Your task to perform on an android device: turn on bluetooth scan Image 0: 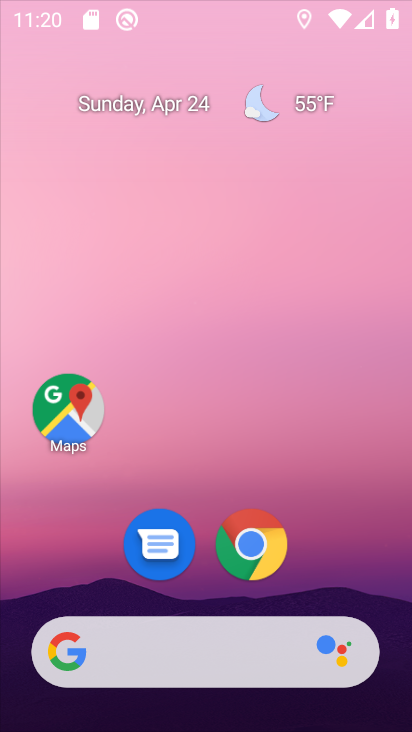
Step 0: click (247, 545)
Your task to perform on an android device: turn on bluetooth scan Image 1: 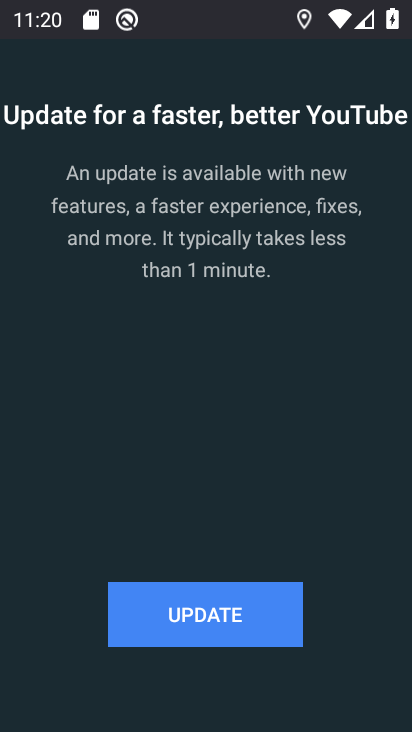
Step 1: press home button
Your task to perform on an android device: turn on bluetooth scan Image 2: 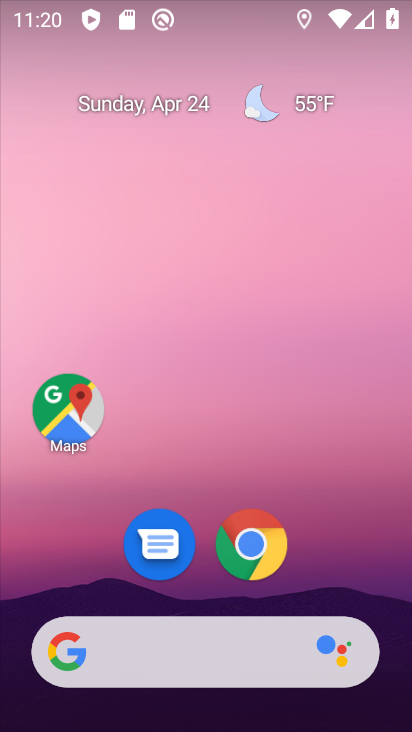
Step 2: drag from (319, 439) to (314, 94)
Your task to perform on an android device: turn on bluetooth scan Image 3: 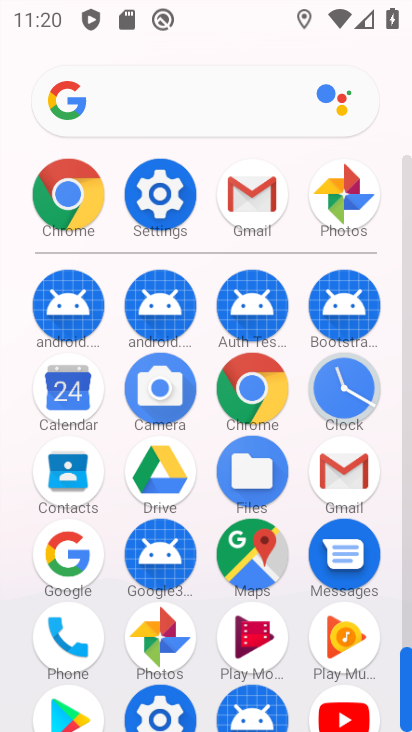
Step 3: click (158, 188)
Your task to perform on an android device: turn on bluetooth scan Image 4: 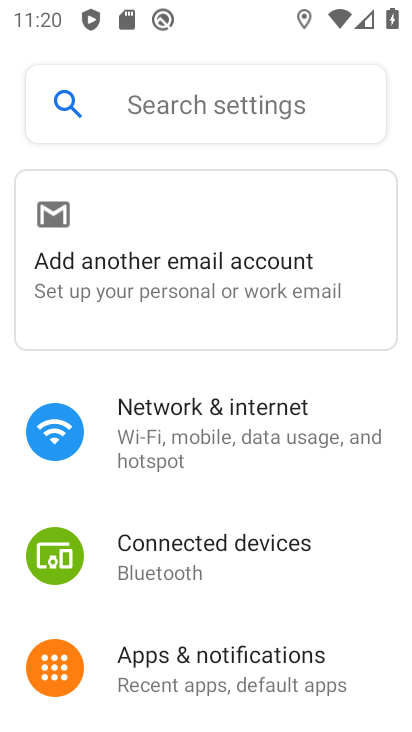
Step 4: drag from (366, 654) to (337, 119)
Your task to perform on an android device: turn on bluetooth scan Image 5: 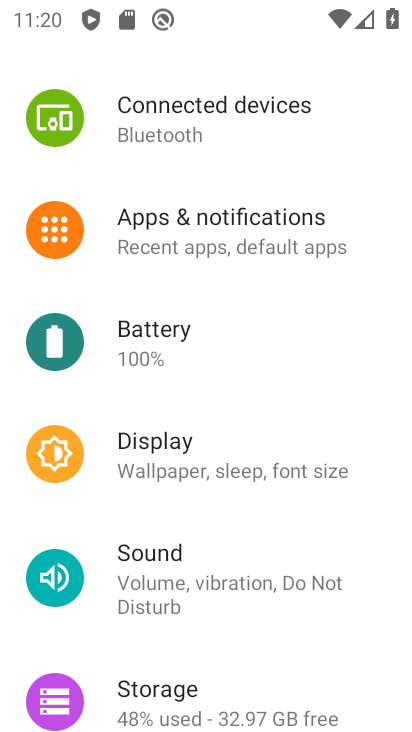
Step 5: drag from (346, 602) to (346, 223)
Your task to perform on an android device: turn on bluetooth scan Image 6: 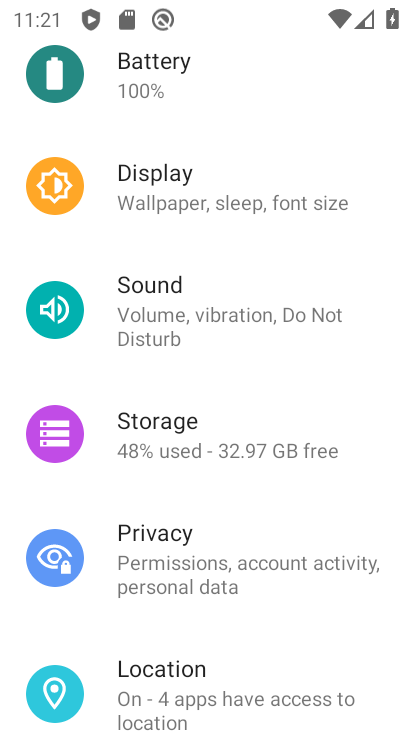
Step 6: click (140, 686)
Your task to perform on an android device: turn on bluetooth scan Image 7: 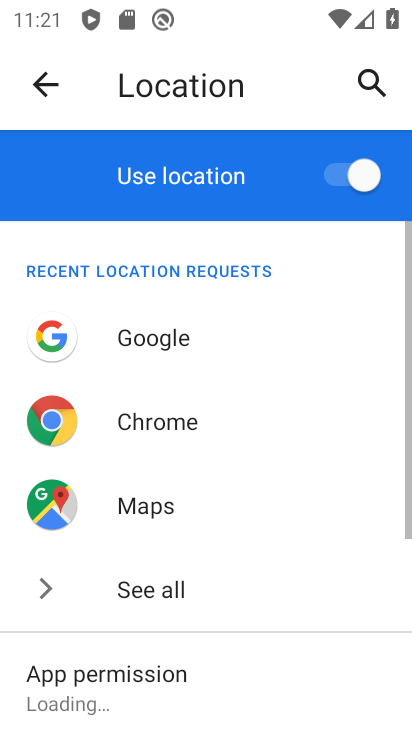
Step 7: drag from (212, 621) to (161, 173)
Your task to perform on an android device: turn on bluetooth scan Image 8: 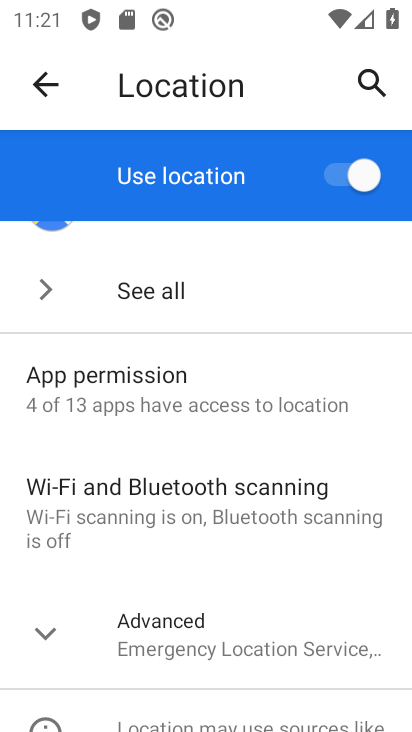
Step 8: click (197, 505)
Your task to perform on an android device: turn on bluetooth scan Image 9: 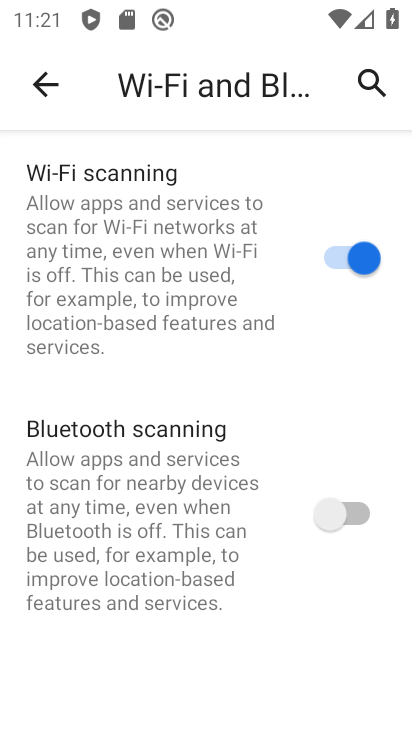
Step 9: click (345, 510)
Your task to perform on an android device: turn on bluetooth scan Image 10: 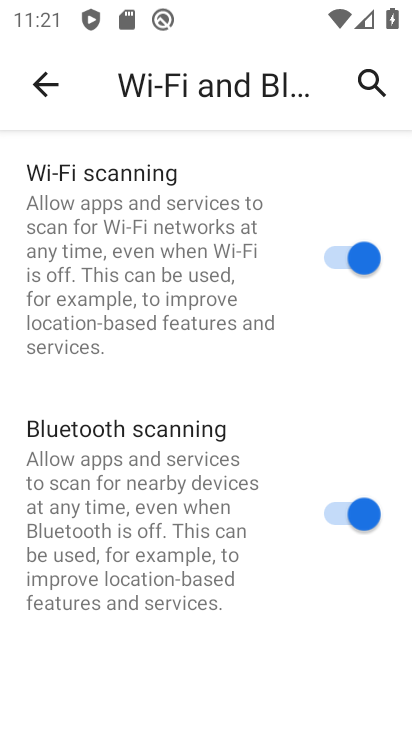
Step 10: task complete